Your task to perform on an android device: turn on sleep mode Image 0: 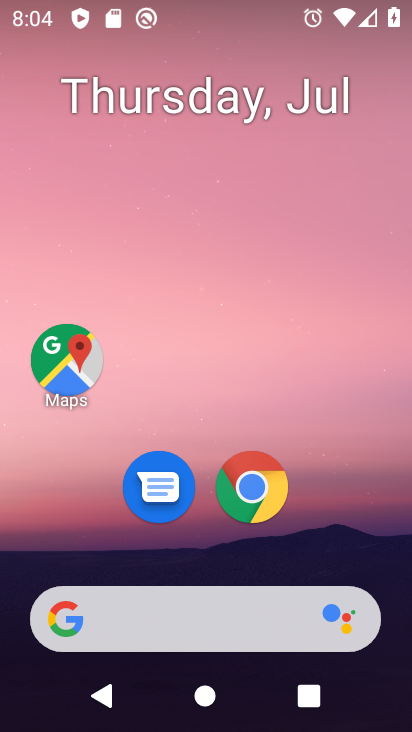
Step 0: drag from (293, 622) to (227, 138)
Your task to perform on an android device: turn on sleep mode Image 1: 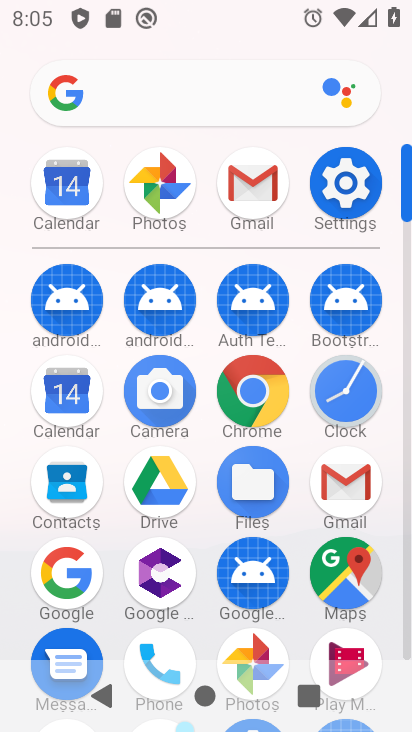
Step 1: click (344, 187)
Your task to perform on an android device: turn on sleep mode Image 2: 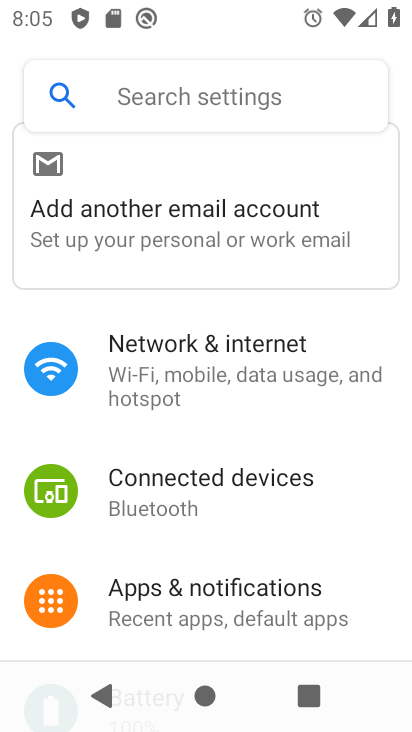
Step 2: drag from (291, 575) to (270, 397)
Your task to perform on an android device: turn on sleep mode Image 3: 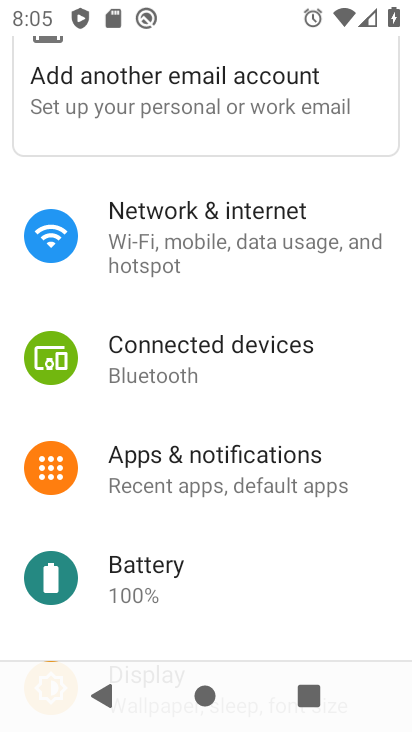
Step 3: drag from (257, 538) to (232, 320)
Your task to perform on an android device: turn on sleep mode Image 4: 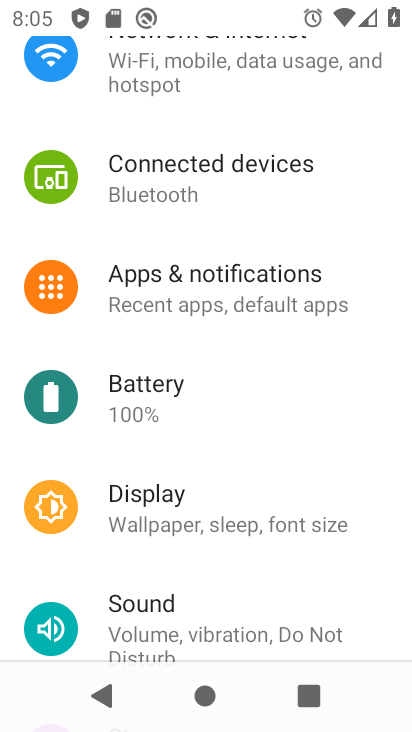
Step 4: click (200, 509)
Your task to perform on an android device: turn on sleep mode Image 5: 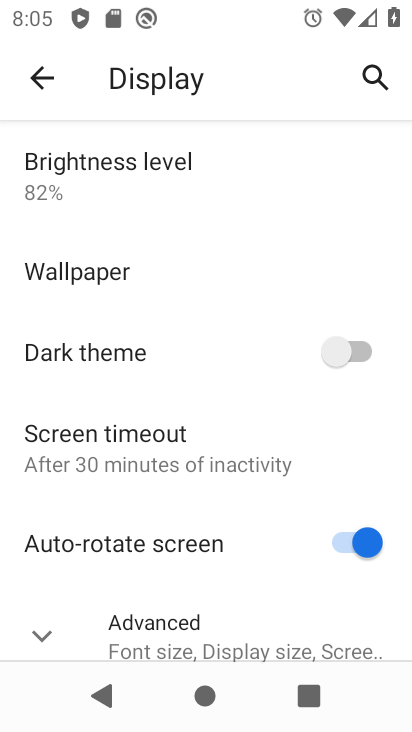
Step 5: click (200, 633)
Your task to perform on an android device: turn on sleep mode Image 6: 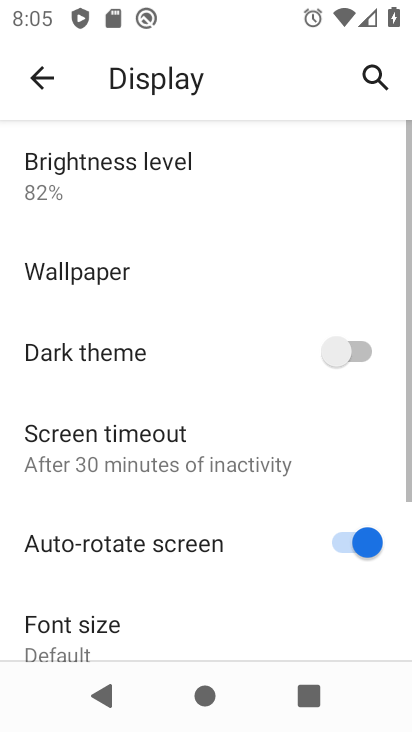
Step 6: task complete